Your task to perform on an android device: see tabs open on other devices in the chrome app Image 0: 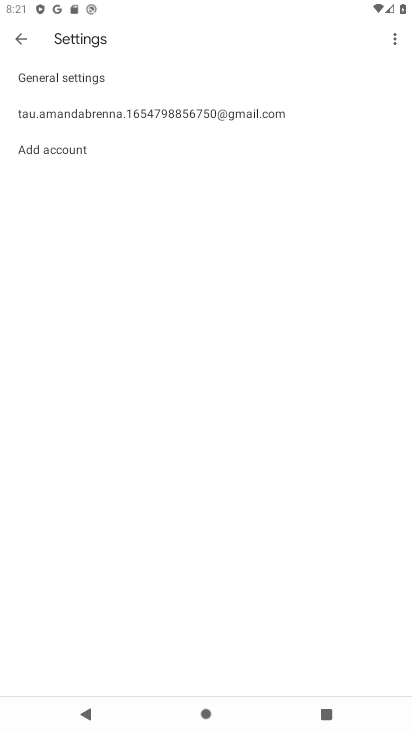
Step 0: press home button
Your task to perform on an android device: see tabs open on other devices in the chrome app Image 1: 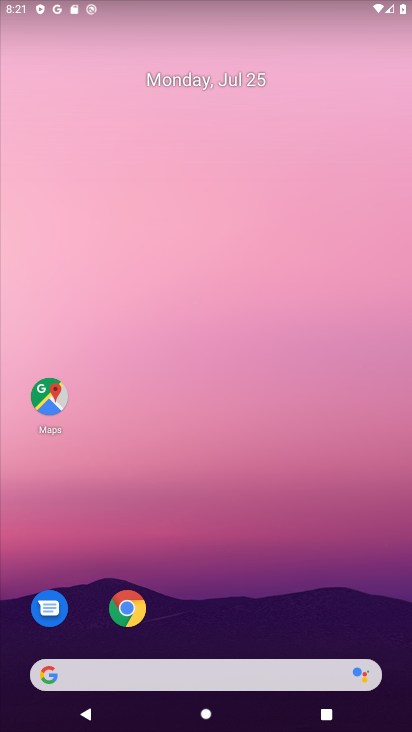
Step 1: drag from (206, 594) to (215, 81)
Your task to perform on an android device: see tabs open on other devices in the chrome app Image 2: 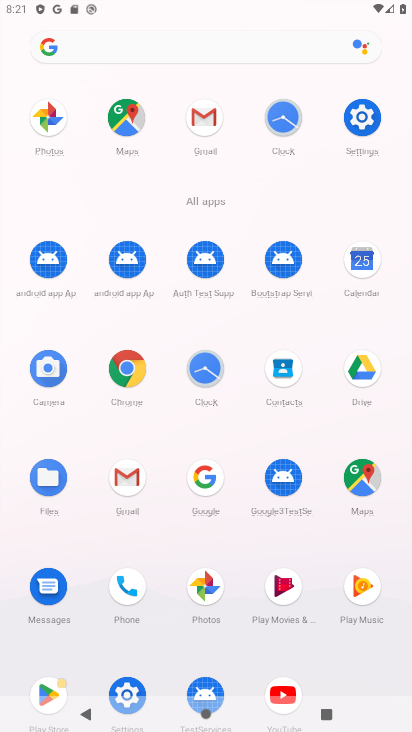
Step 2: click (131, 359)
Your task to perform on an android device: see tabs open on other devices in the chrome app Image 3: 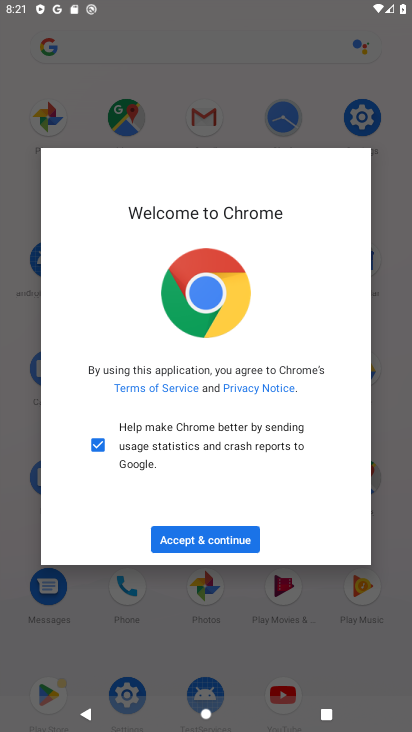
Step 3: click (198, 542)
Your task to perform on an android device: see tabs open on other devices in the chrome app Image 4: 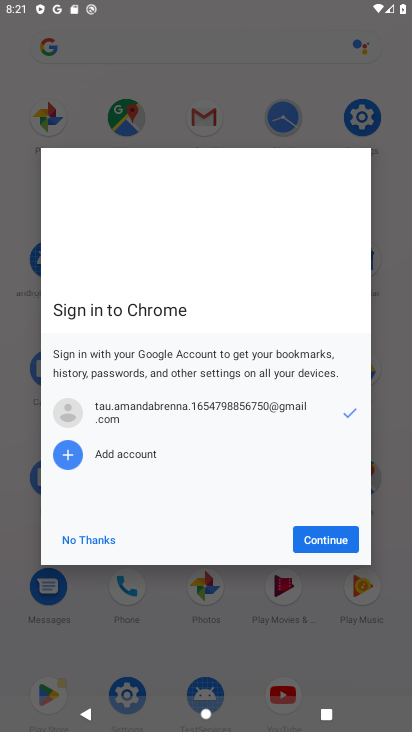
Step 4: click (331, 530)
Your task to perform on an android device: see tabs open on other devices in the chrome app Image 5: 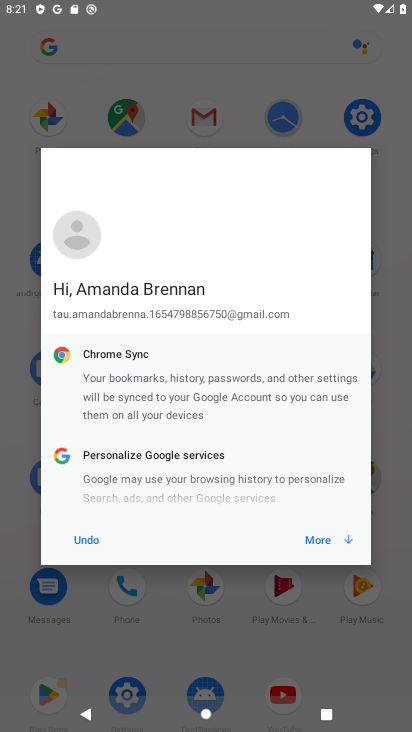
Step 5: click (308, 536)
Your task to perform on an android device: see tabs open on other devices in the chrome app Image 6: 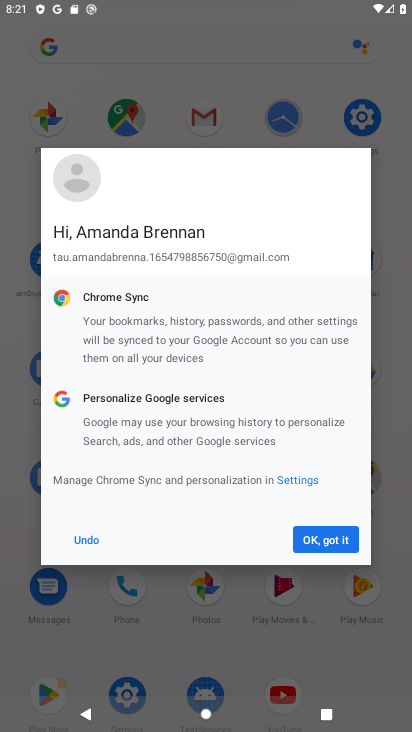
Step 6: click (308, 536)
Your task to perform on an android device: see tabs open on other devices in the chrome app Image 7: 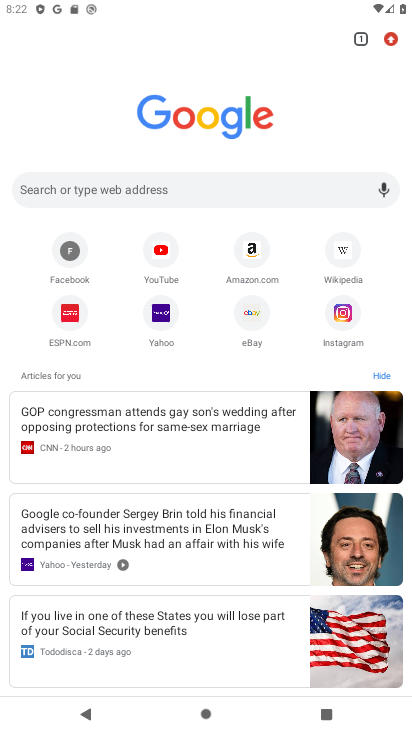
Step 7: click (389, 41)
Your task to perform on an android device: see tabs open on other devices in the chrome app Image 8: 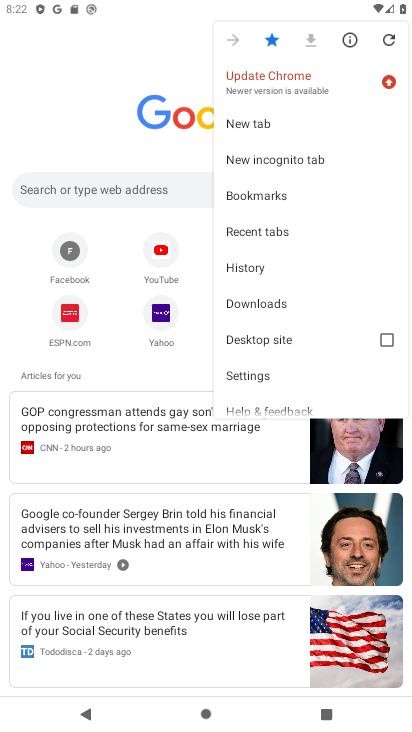
Step 8: click (245, 269)
Your task to perform on an android device: see tabs open on other devices in the chrome app Image 9: 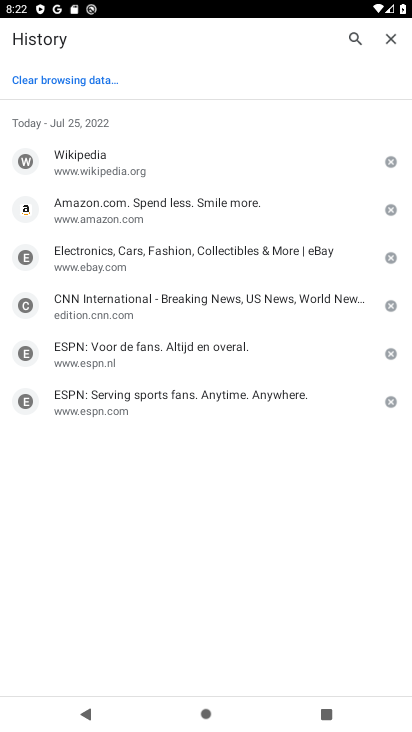
Step 9: task complete